Your task to perform on an android device: check out phone information Image 0: 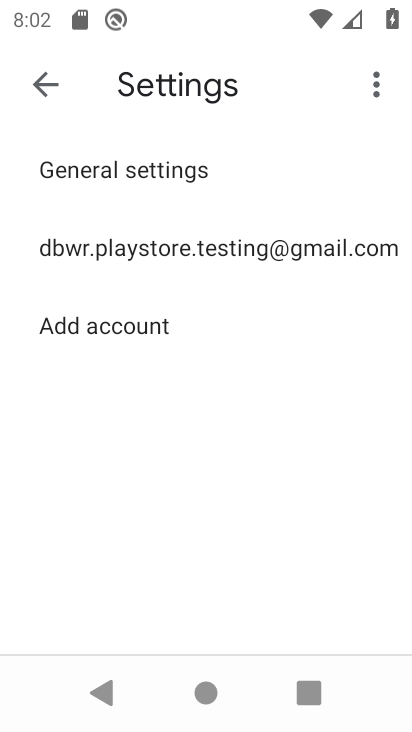
Step 0: press home button
Your task to perform on an android device: check out phone information Image 1: 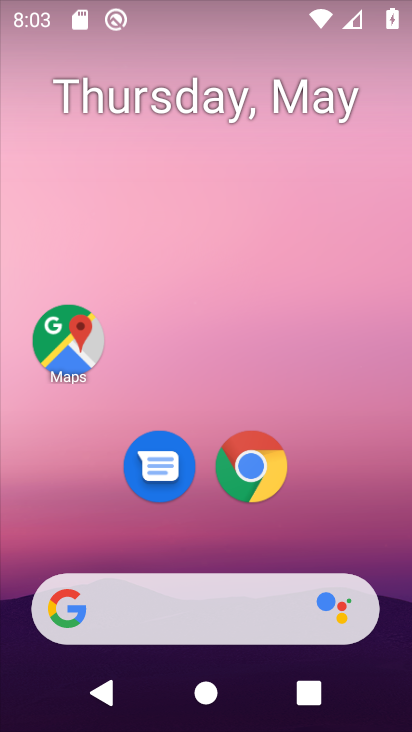
Step 1: drag from (355, 484) to (287, 52)
Your task to perform on an android device: check out phone information Image 2: 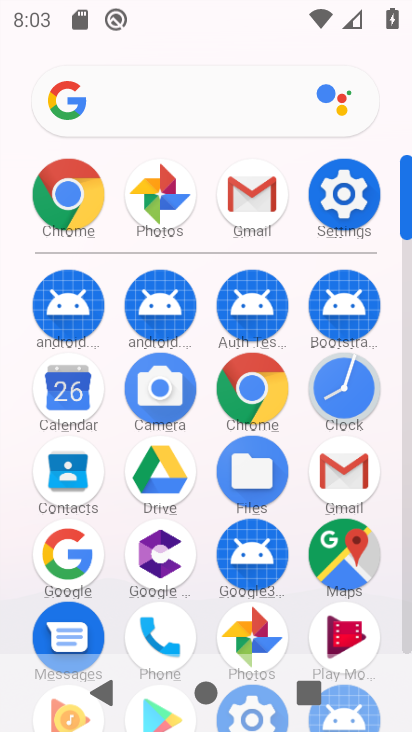
Step 2: click (355, 194)
Your task to perform on an android device: check out phone information Image 3: 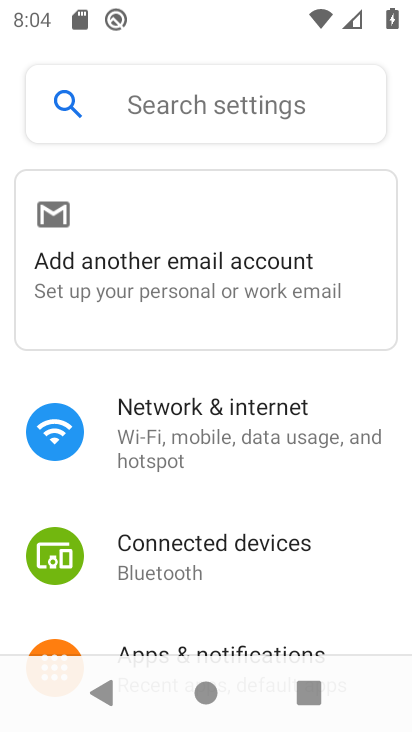
Step 3: task complete